Your task to perform on an android device: turn on improve location accuracy Image 0: 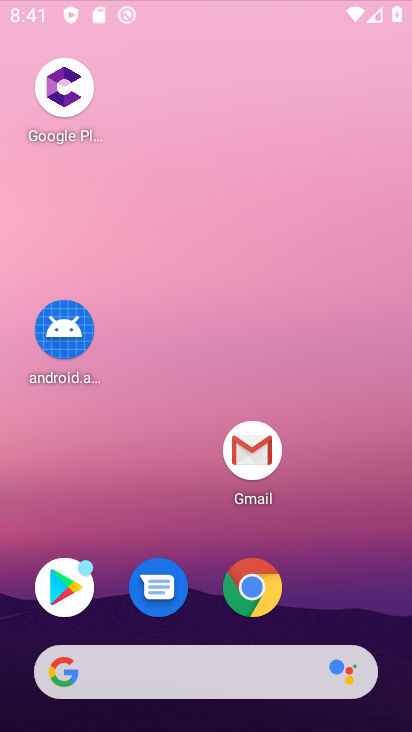
Step 0: click (160, 45)
Your task to perform on an android device: turn on improve location accuracy Image 1: 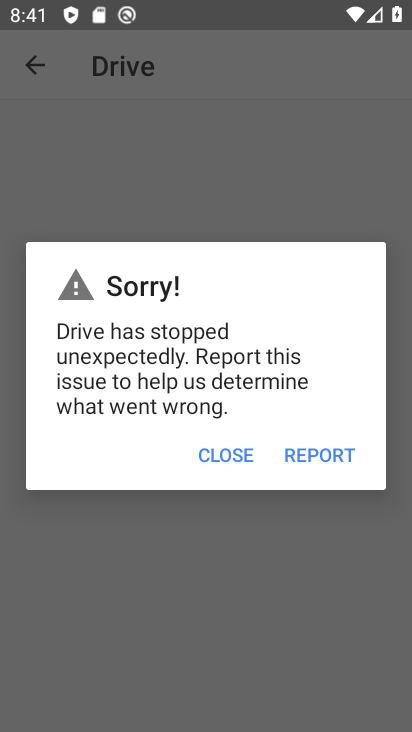
Step 1: drag from (280, 590) to (147, 225)
Your task to perform on an android device: turn on improve location accuracy Image 2: 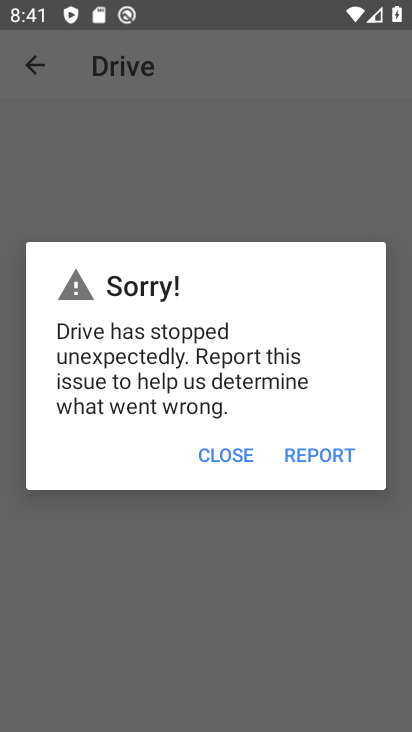
Step 2: click (231, 445)
Your task to perform on an android device: turn on improve location accuracy Image 3: 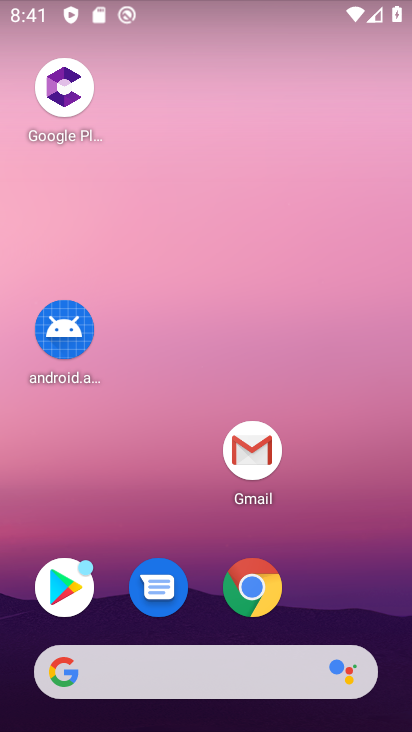
Step 3: drag from (330, 578) to (116, 173)
Your task to perform on an android device: turn on improve location accuracy Image 4: 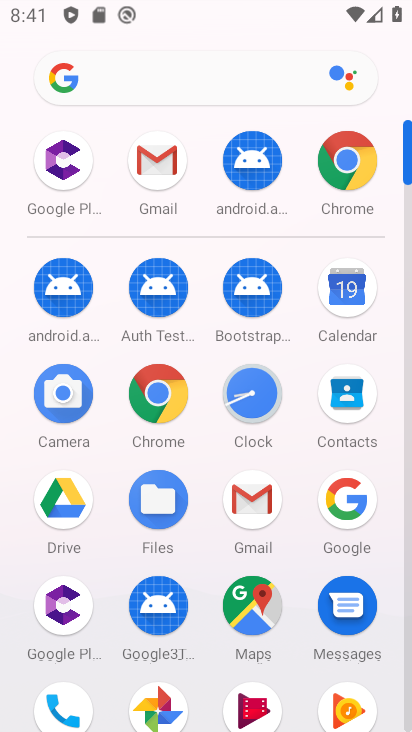
Step 4: drag from (315, 581) to (252, 162)
Your task to perform on an android device: turn on improve location accuracy Image 5: 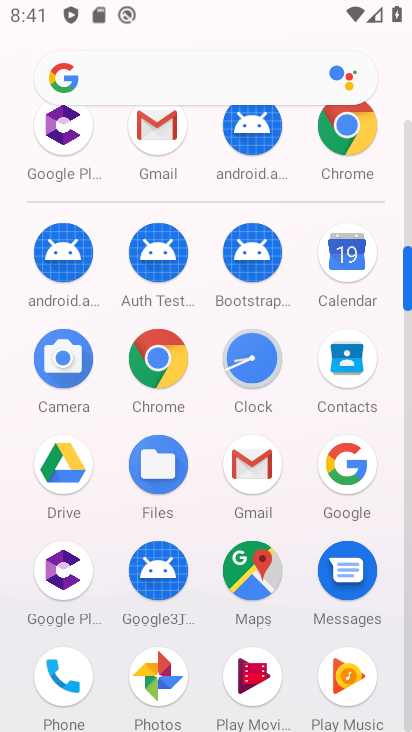
Step 5: drag from (282, 562) to (252, 152)
Your task to perform on an android device: turn on improve location accuracy Image 6: 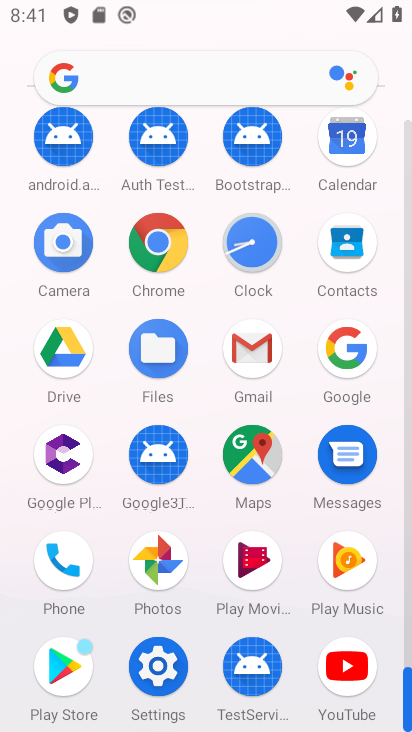
Step 6: click (158, 668)
Your task to perform on an android device: turn on improve location accuracy Image 7: 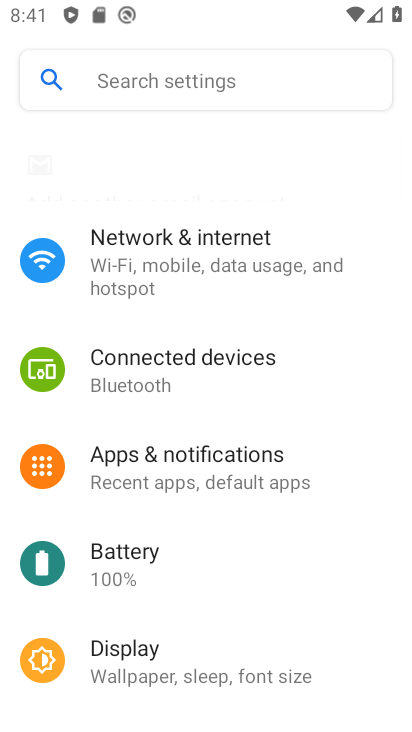
Step 7: click (158, 668)
Your task to perform on an android device: turn on improve location accuracy Image 8: 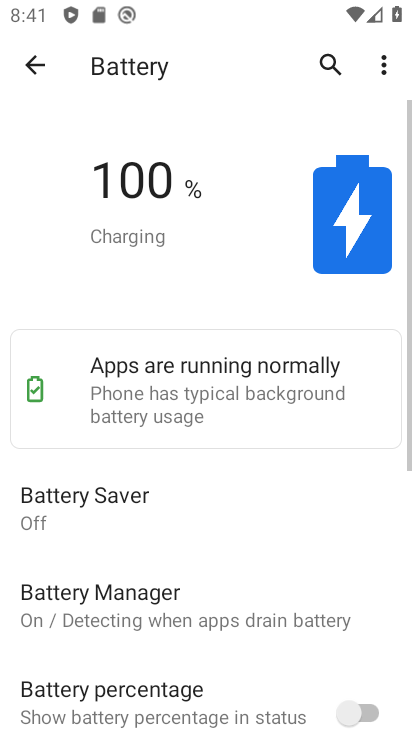
Step 8: click (26, 74)
Your task to perform on an android device: turn on improve location accuracy Image 9: 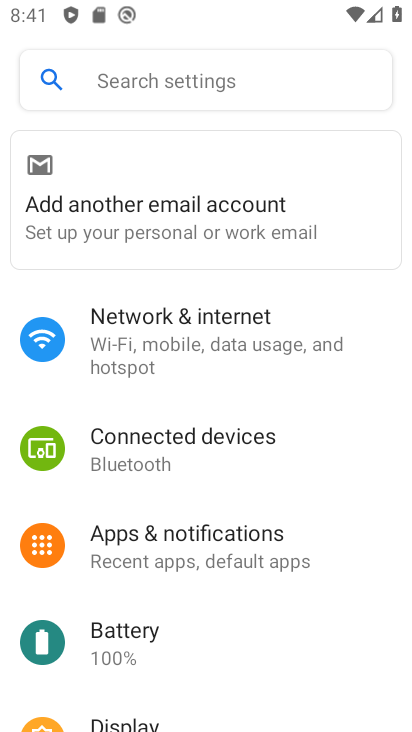
Step 9: drag from (223, 661) to (219, 213)
Your task to perform on an android device: turn on improve location accuracy Image 10: 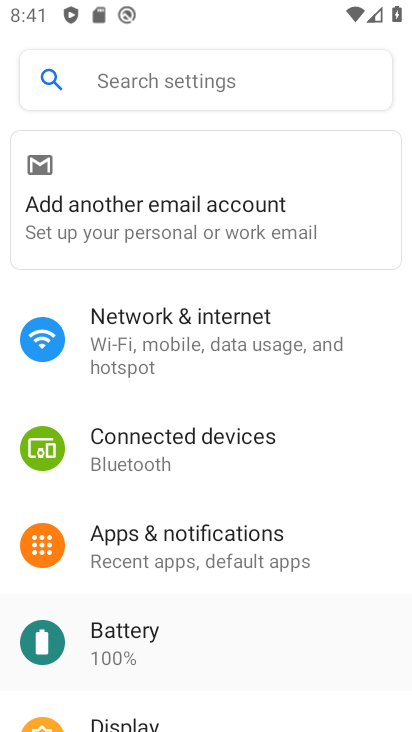
Step 10: drag from (202, 428) to (202, 222)
Your task to perform on an android device: turn on improve location accuracy Image 11: 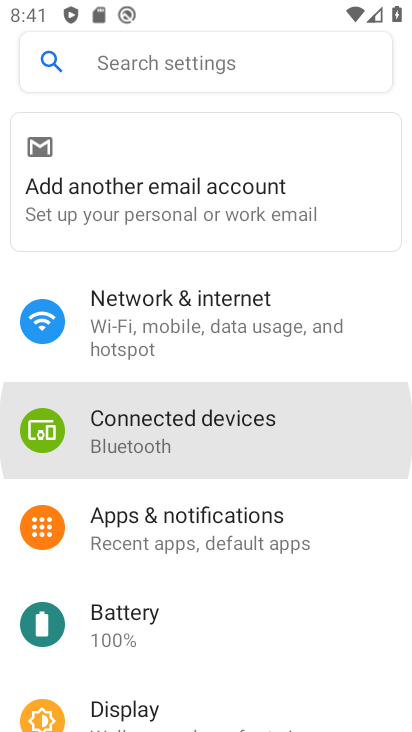
Step 11: drag from (267, 530) to (309, 233)
Your task to perform on an android device: turn on improve location accuracy Image 12: 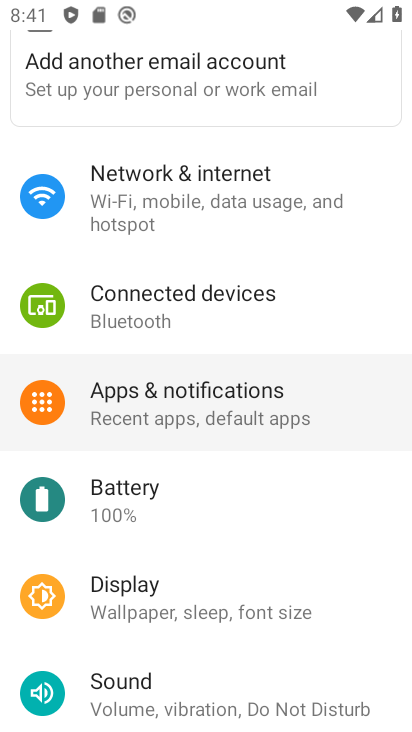
Step 12: drag from (244, 516) to (301, 167)
Your task to perform on an android device: turn on improve location accuracy Image 13: 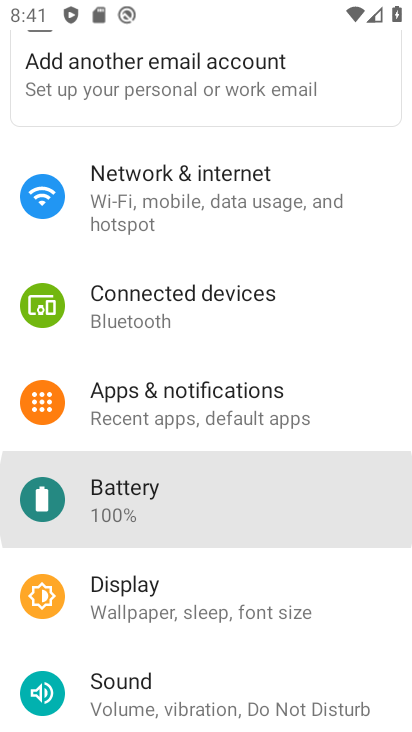
Step 13: drag from (196, 579) to (303, 163)
Your task to perform on an android device: turn on improve location accuracy Image 14: 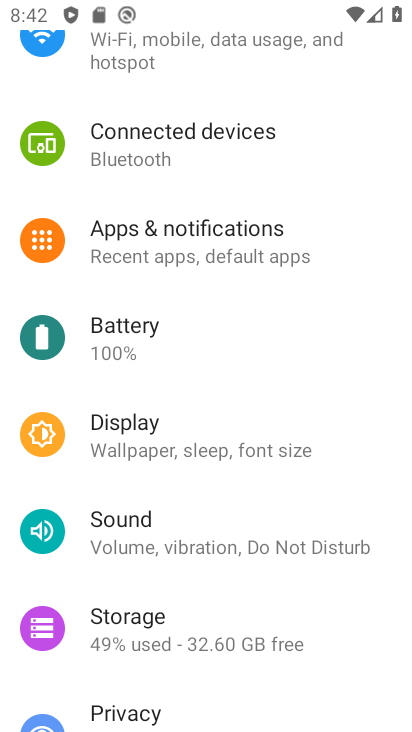
Step 14: drag from (191, 552) to (261, 132)
Your task to perform on an android device: turn on improve location accuracy Image 15: 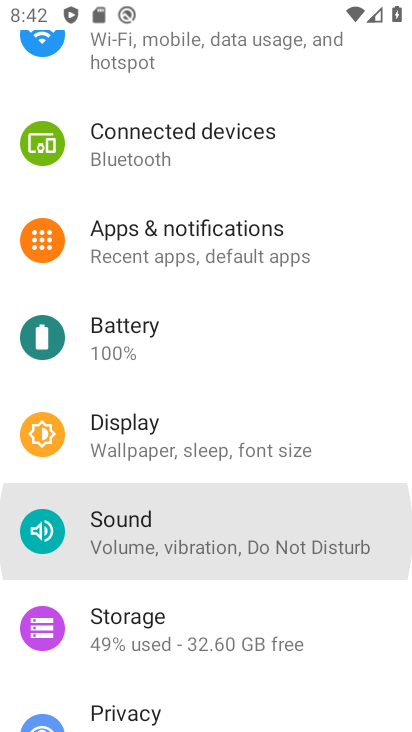
Step 15: drag from (285, 481) to (303, 160)
Your task to perform on an android device: turn on improve location accuracy Image 16: 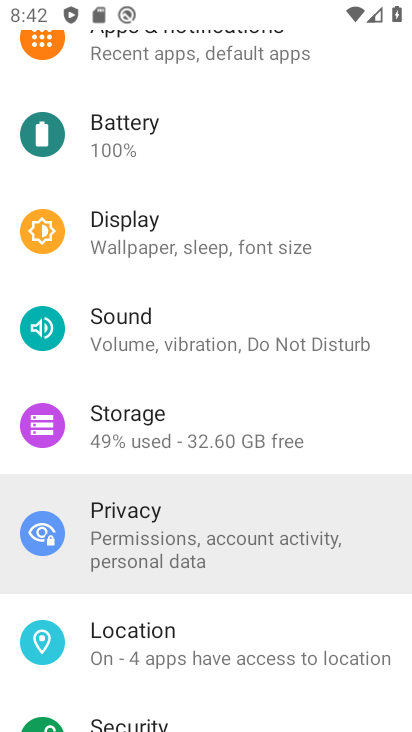
Step 16: drag from (293, 515) to (266, 53)
Your task to perform on an android device: turn on improve location accuracy Image 17: 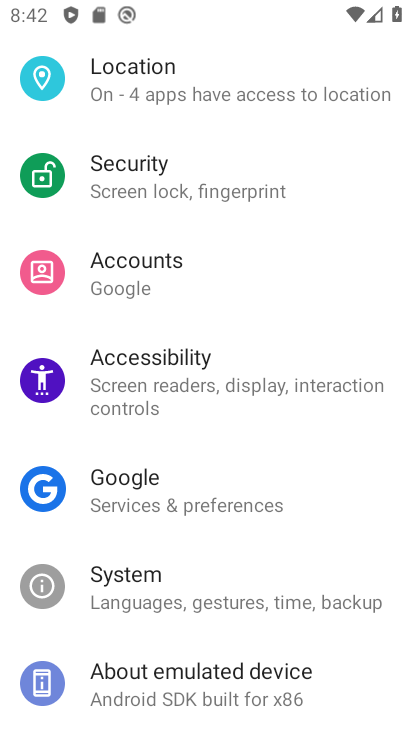
Step 17: click (156, 78)
Your task to perform on an android device: turn on improve location accuracy Image 18: 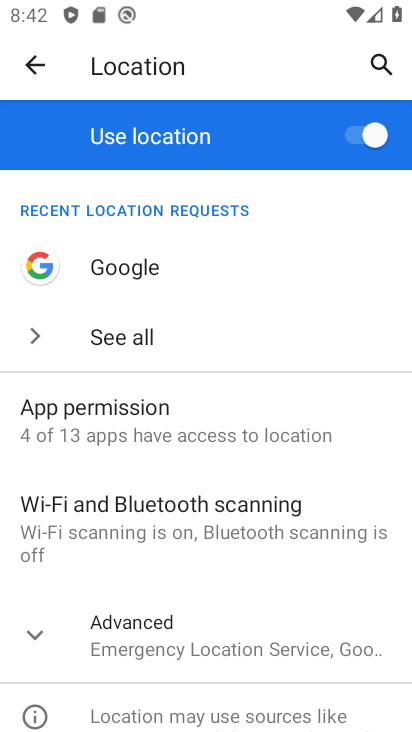
Step 18: click (146, 647)
Your task to perform on an android device: turn on improve location accuracy Image 19: 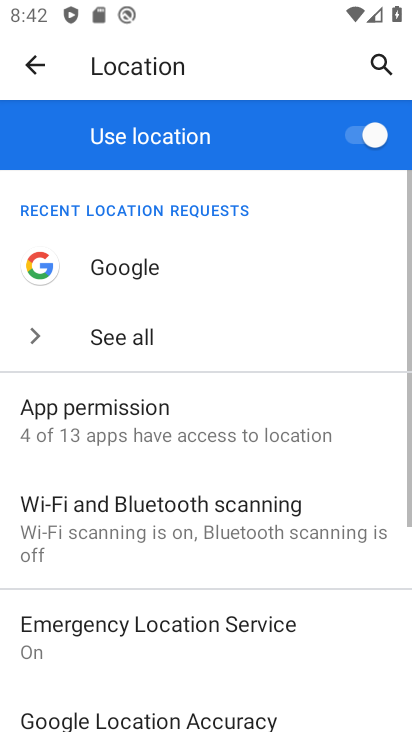
Step 19: drag from (160, 607) to (132, 240)
Your task to perform on an android device: turn on improve location accuracy Image 20: 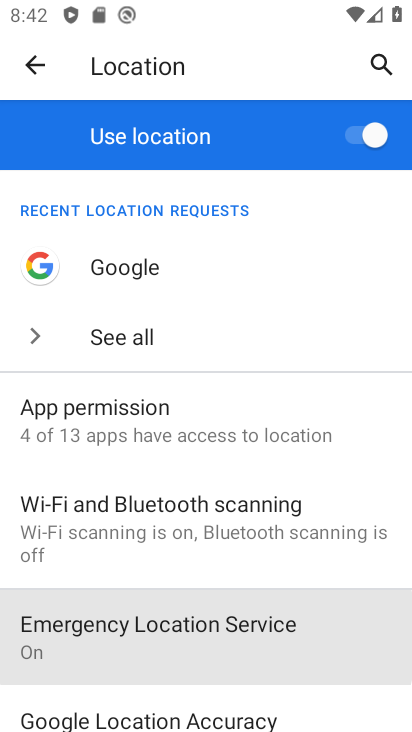
Step 20: drag from (185, 501) to (206, 194)
Your task to perform on an android device: turn on improve location accuracy Image 21: 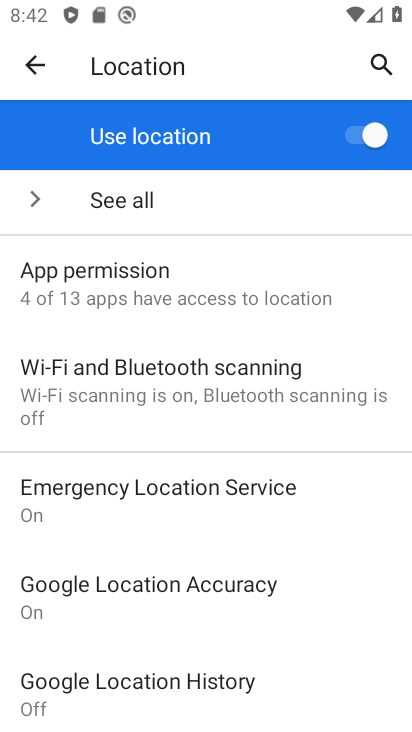
Step 21: click (128, 582)
Your task to perform on an android device: turn on improve location accuracy Image 22: 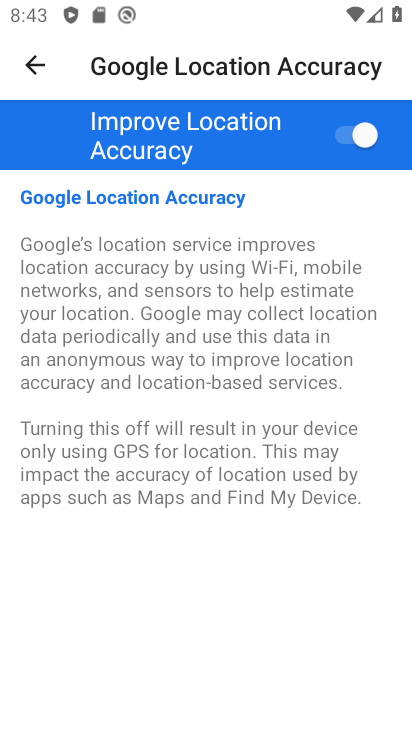
Step 22: task complete